Your task to perform on an android device: Open the calendar and show me this week's events? Image 0: 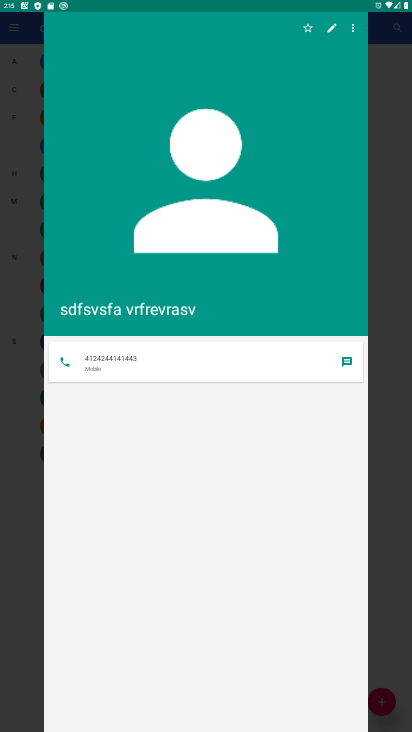
Step 0: press home button
Your task to perform on an android device: Open the calendar and show me this week's events? Image 1: 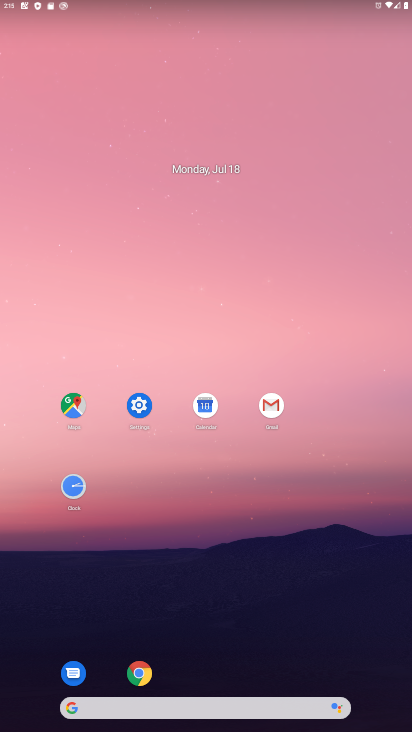
Step 1: click (200, 398)
Your task to perform on an android device: Open the calendar and show me this week's events? Image 2: 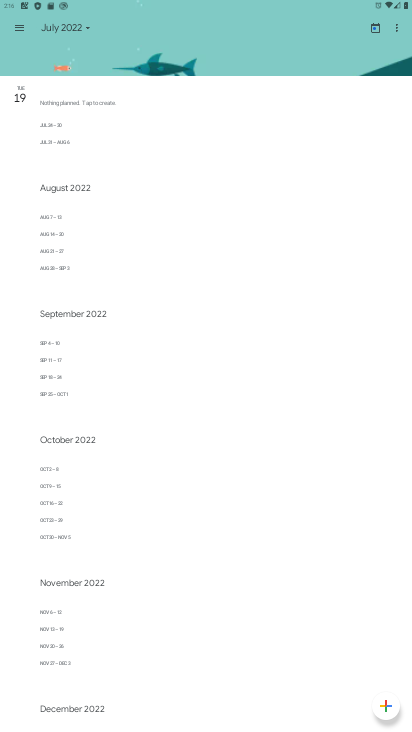
Step 2: click (12, 28)
Your task to perform on an android device: Open the calendar and show me this week's events? Image 3: 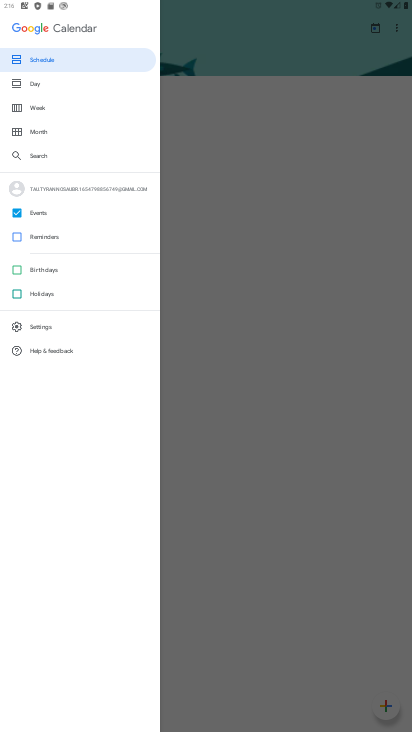
Step 3: click (36, 105)
Your task to perform on an android device: Open the calendar and show me this week's events? Image 4: 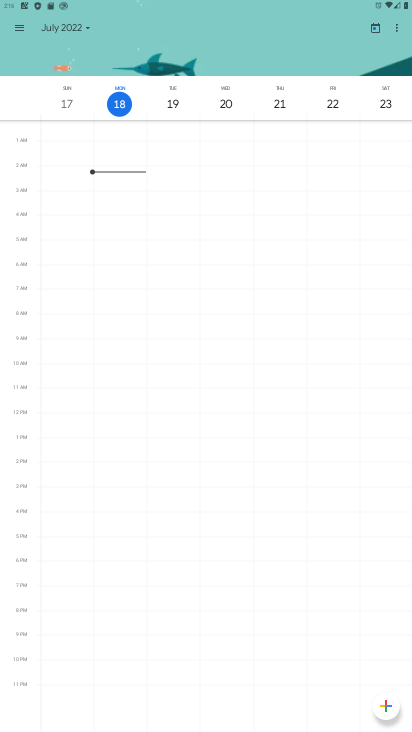
Step 4: click (14, 19)
Your task to perform on an android device: Open the calendar and show me this week's events? Image 5: 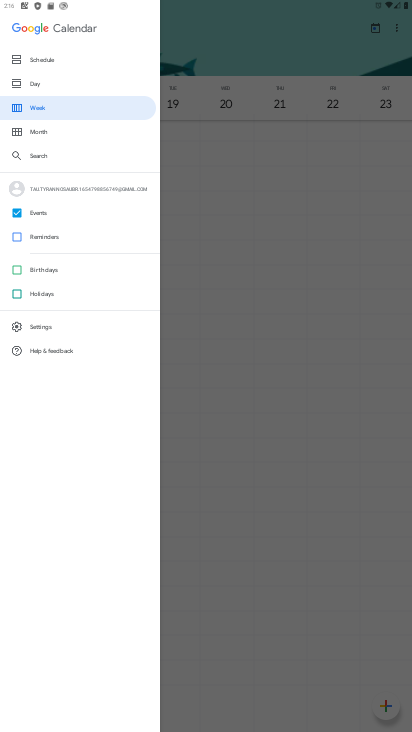
Step 5: click (51, 59)
Your task to perform on an android device: Open the calendar and show me this week's events? Image 6: 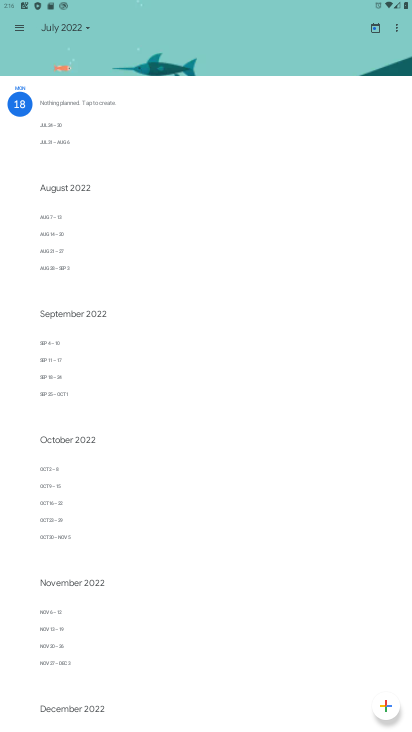
Step 6: task complete